Your task to perform on an android device: Open Wikipedia Image 0: 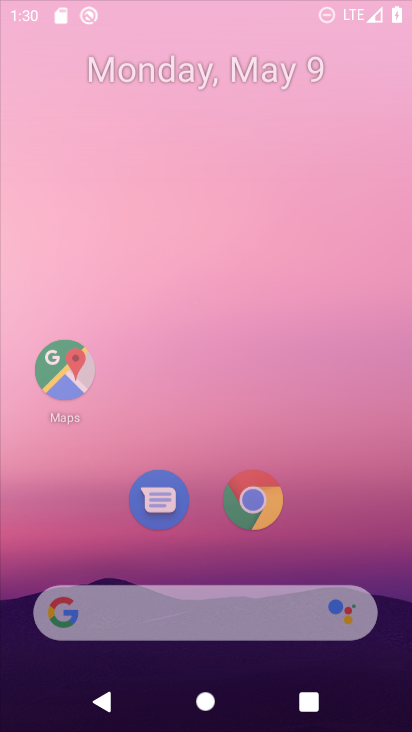
Step 0: click (177, 78)
Your task to perform on an android device: Open Wikipedia Image 1: 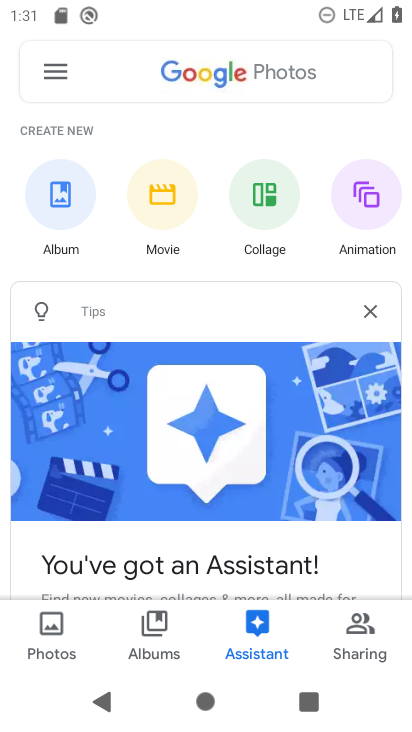
Step 1: press home button
Your task to perform on an android device: Open Wikipedia Image 2: 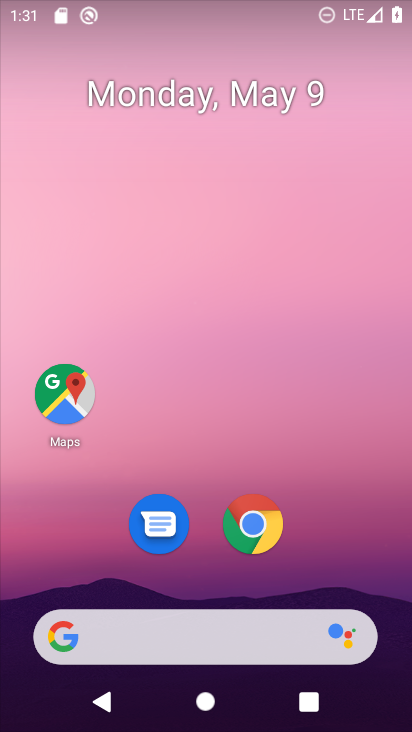
Step 2: click (244, 526)
Your task to perform on an android device: Open Wikipedia Image 3: 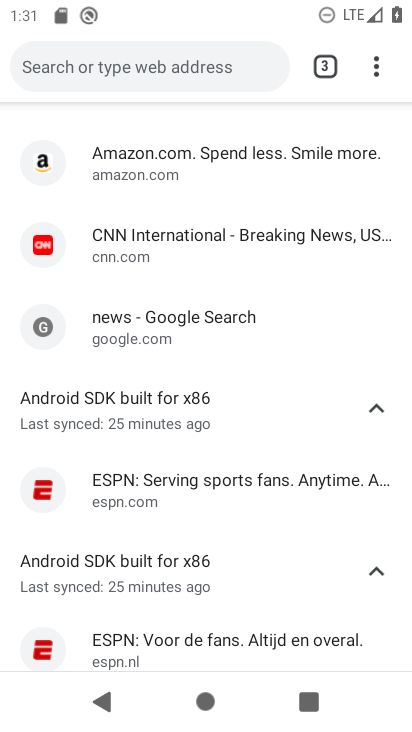
Step 3: click (325, 64)
Your task to perform on an android device: Open Wikipedia Image 4: 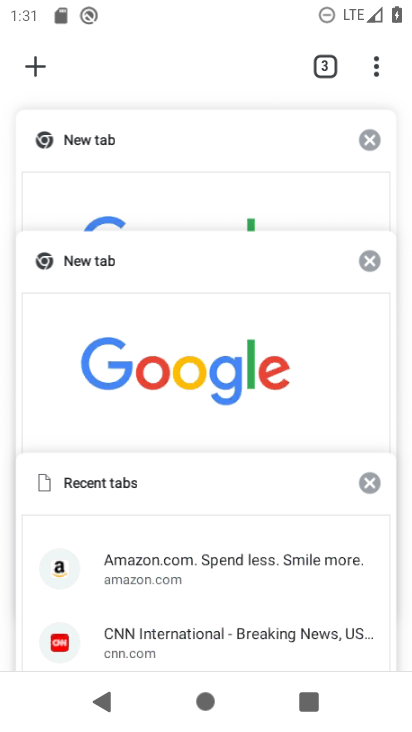
Step 4: click (236, 264)
Your task to perform on an android device: Open Wikipedia Image 5: 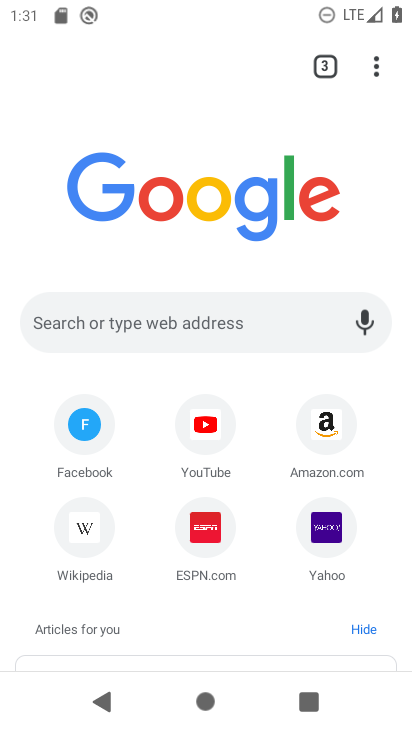
Step 5: click (77, 518)
Your task to perform on an android device: Open Wikipedia Image 6: 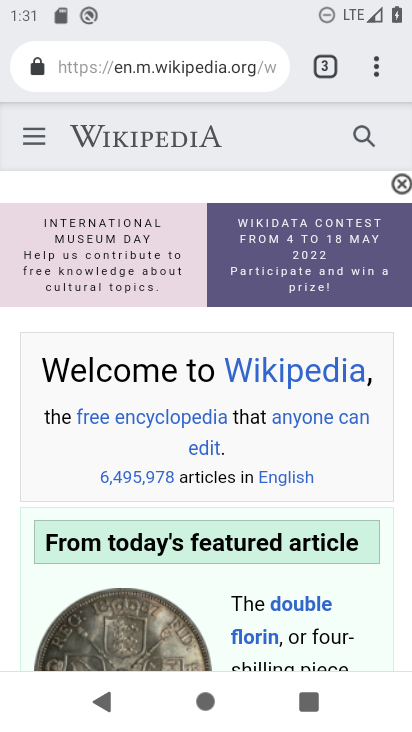
Step 6: task complete